Your task to perform on an android device: turn off priority inbox in the gmail app Image 0: 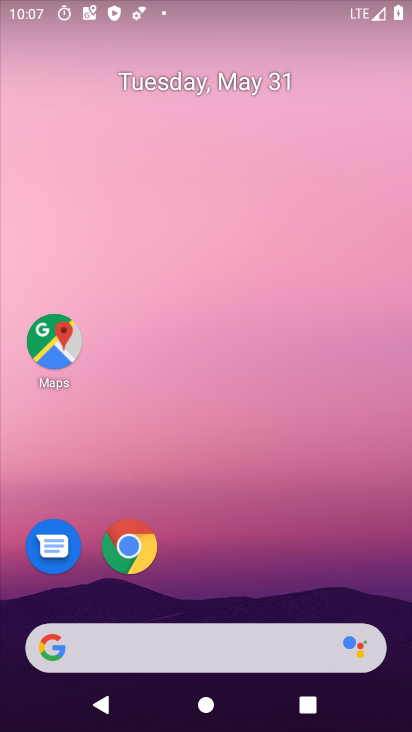
Step 0: drag from (188, 541) to (247, 97)
Your task to perform on an android device: turn off priority inbox in the gmail app Image 1: 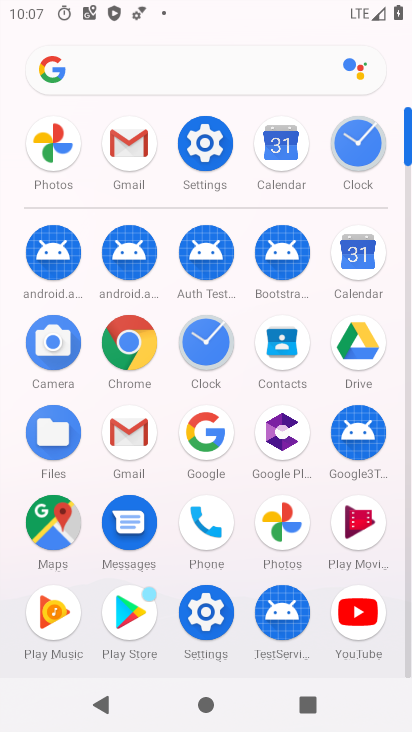
Step 1: click (126, 150)
Your task to perform on an android device: turn off priority inbox in the gmail app Image 2: 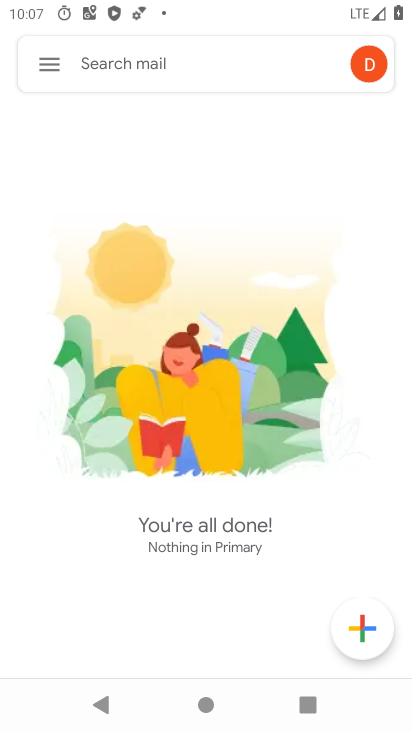
Step 2: click (58, 66)
Your task to perform on an android device: turn off priority inbox in the gmail app Image 3: 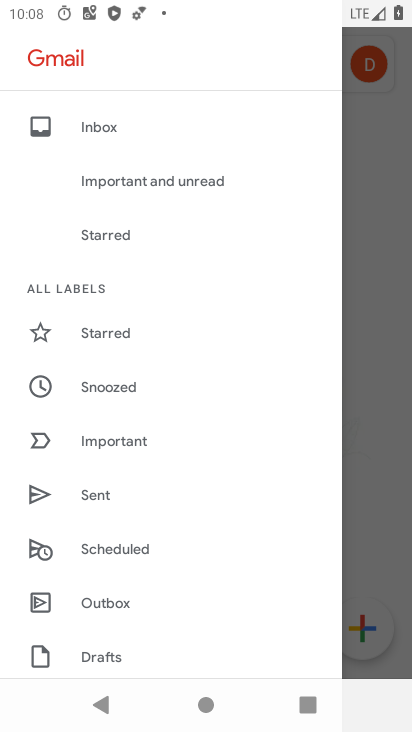
Step 3: drag from (201, 551) to (301, 7)
Your task to perform on an android device: turn off priority inbox in the gmail app Image 4: 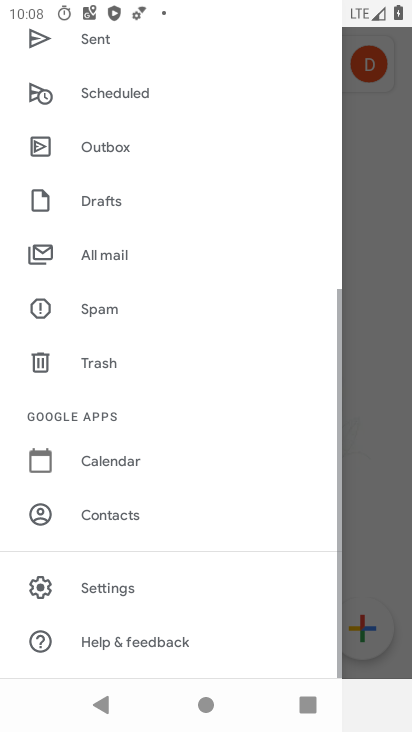
Step 4: click (128, 584)
Your task to perform on an android device: turn off priority inbox in the gmail app Image 5: 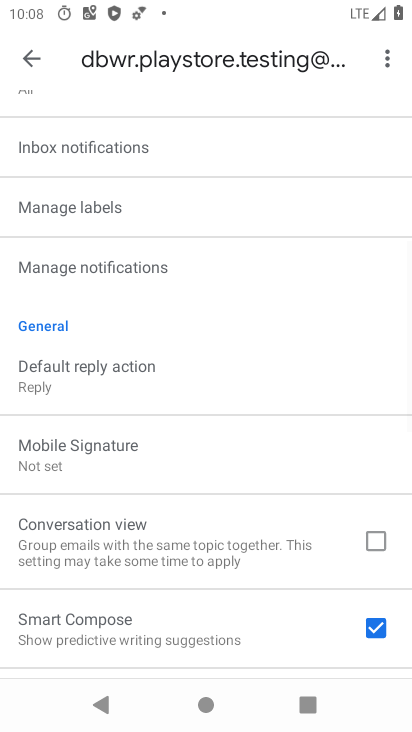
Step 5: task complete